Your task to perform on an android device: open a new tab in the chrome app Image 0: 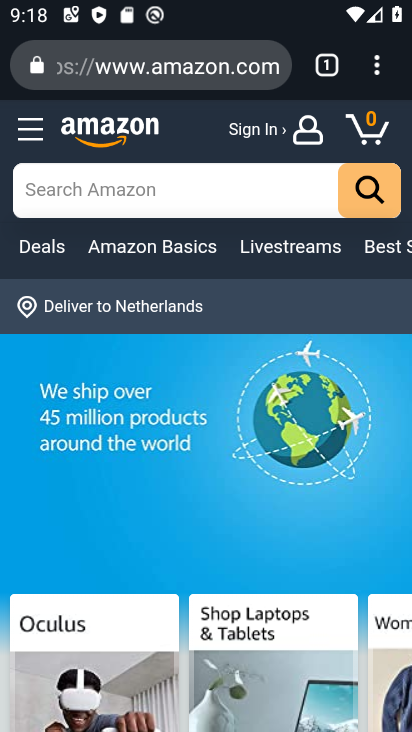
Step 0: click (341, 74)
Your task to perform on an android device: open a new tab in the chrome app Image 1: 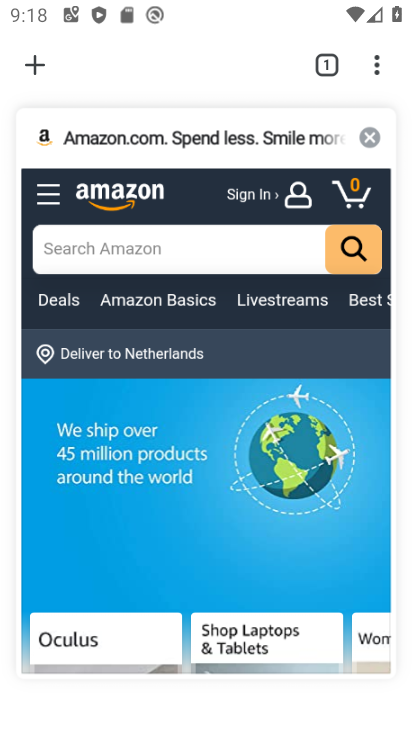
Step 1: click (15, 56)
Your task to perform on an android device: open a new tab in the chrome app Image 2: 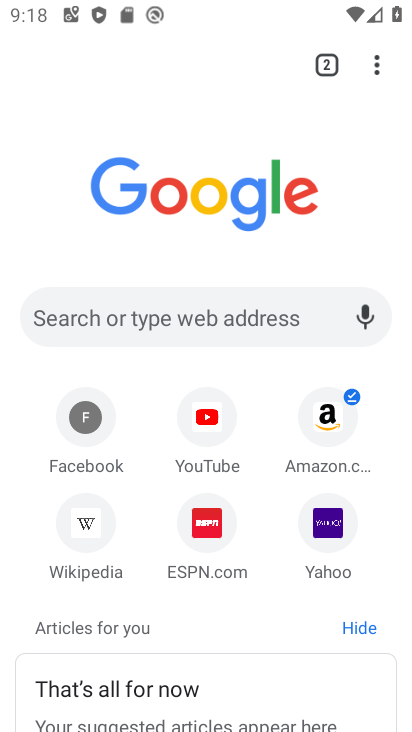
Step 2: task complete